Your task to perform on an android device: Open the calendar and show me this week's events? Image 0: 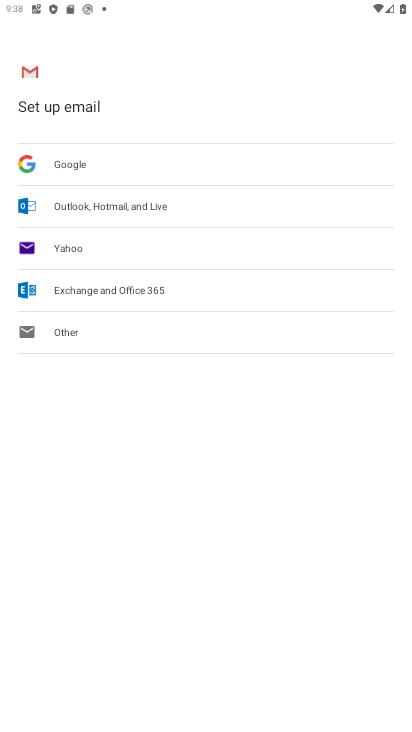
Step 0: press home button
Your task to perform on an android device: Open the calendar and show me this week's events? Image 1: 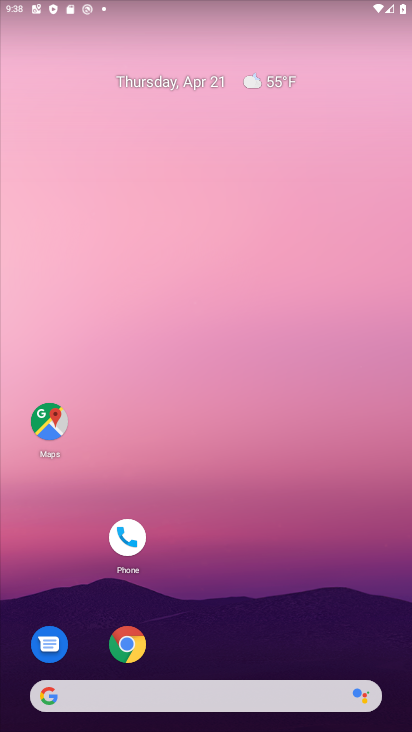
Step 1: drag from (242, 624) to (246, 73)
Your task to perform on an android device: Open the calendar and show me this week's events? Image 2: 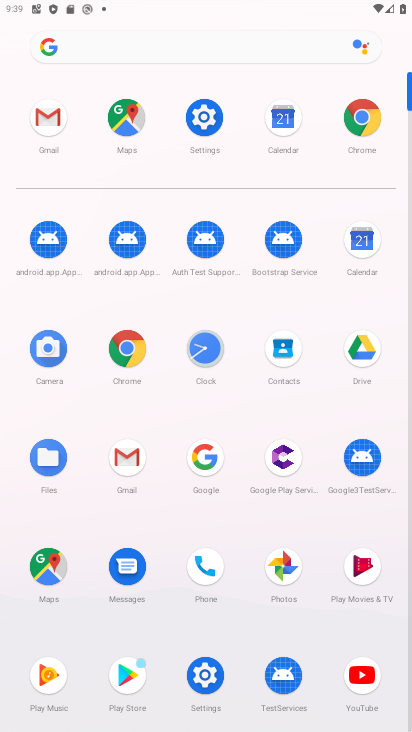
Step 2: click (361, 230)
Your task to perform on an android device: Open the calendar and show me this week's events? Image 3: 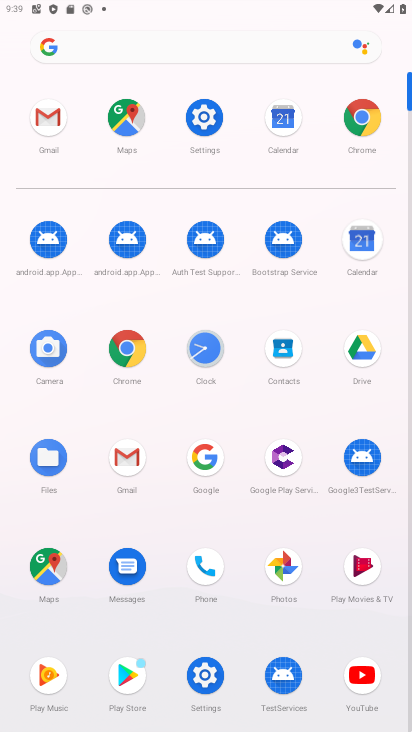
Step 3: click (369, 249)
Your task to perform on an android device: Open the calendar and show me this week's events? Image 4: 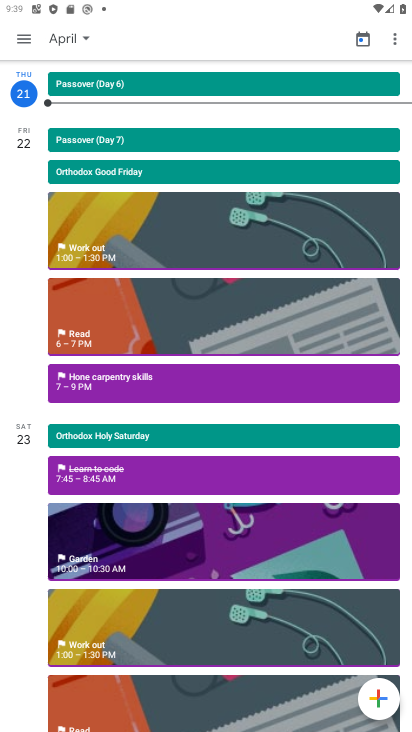
Step 4: task complete